Your task to perform on an android device: Show the shopping cart on costco. Add "macbook" to the cart on costco, then select checkout. Image 0: 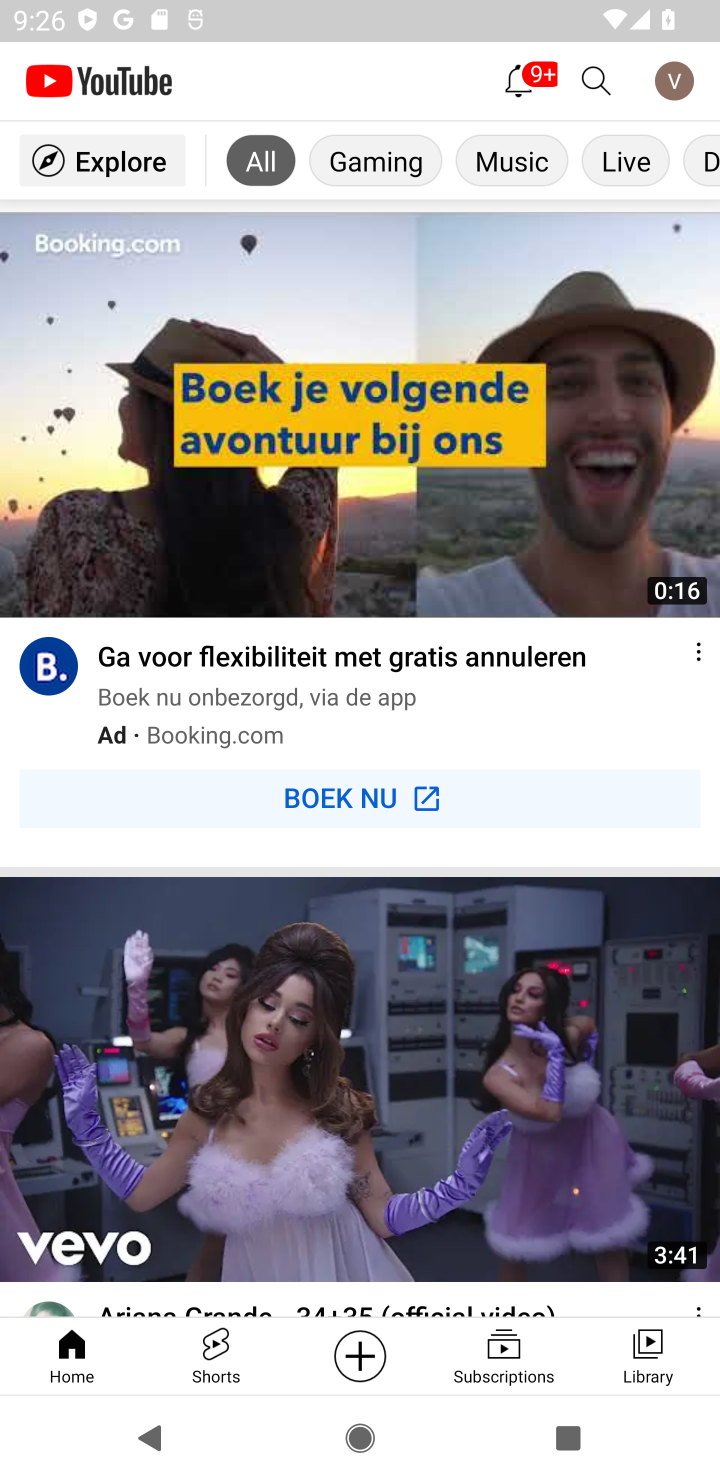
Step 0: press home button
Your task to perform on an android device: Show the shopping cart on costco. Add "macbook" to the cart on costco, then select checkout. Image 1: 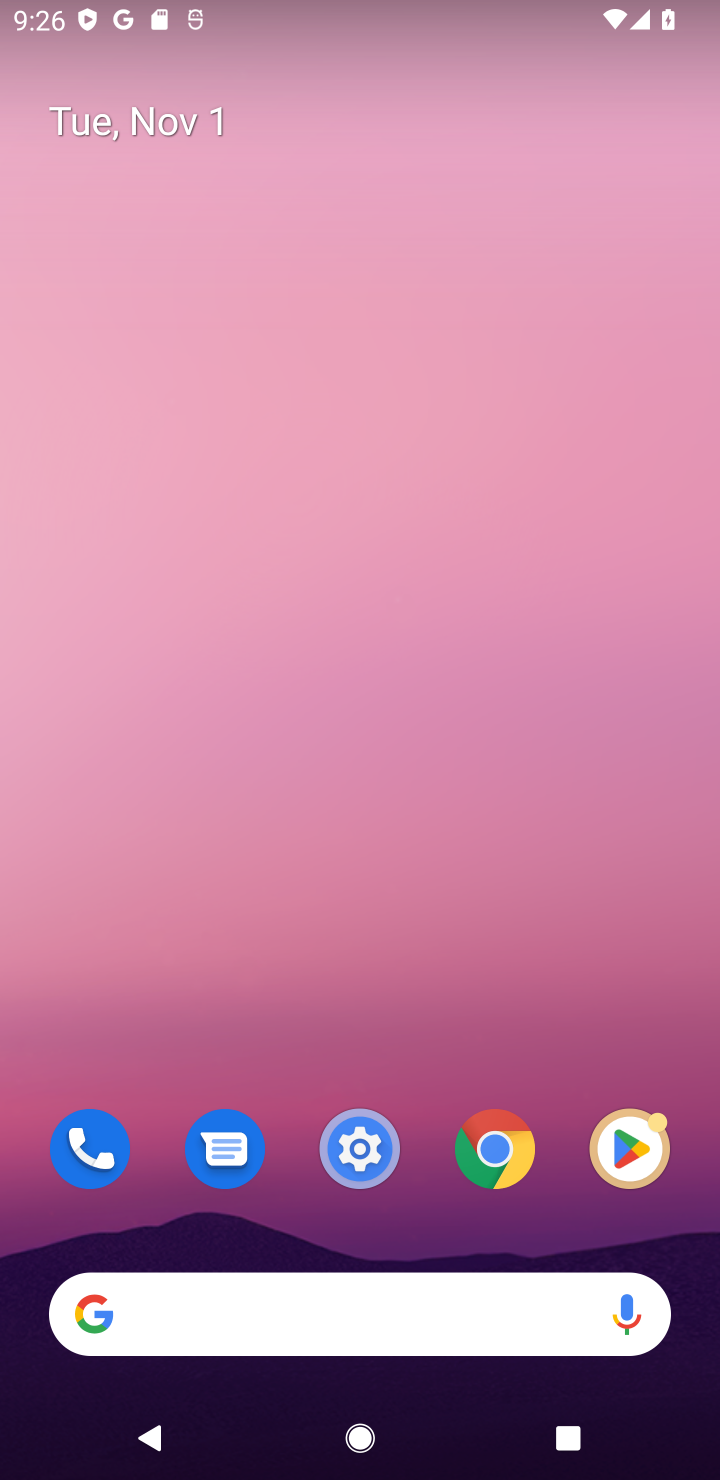
Step 1: click (155, 1315)
Your task to perform on an android device: Show the shopping cart on costco. Add "macbook" to the cart on costco, then select checkout. Image 2: 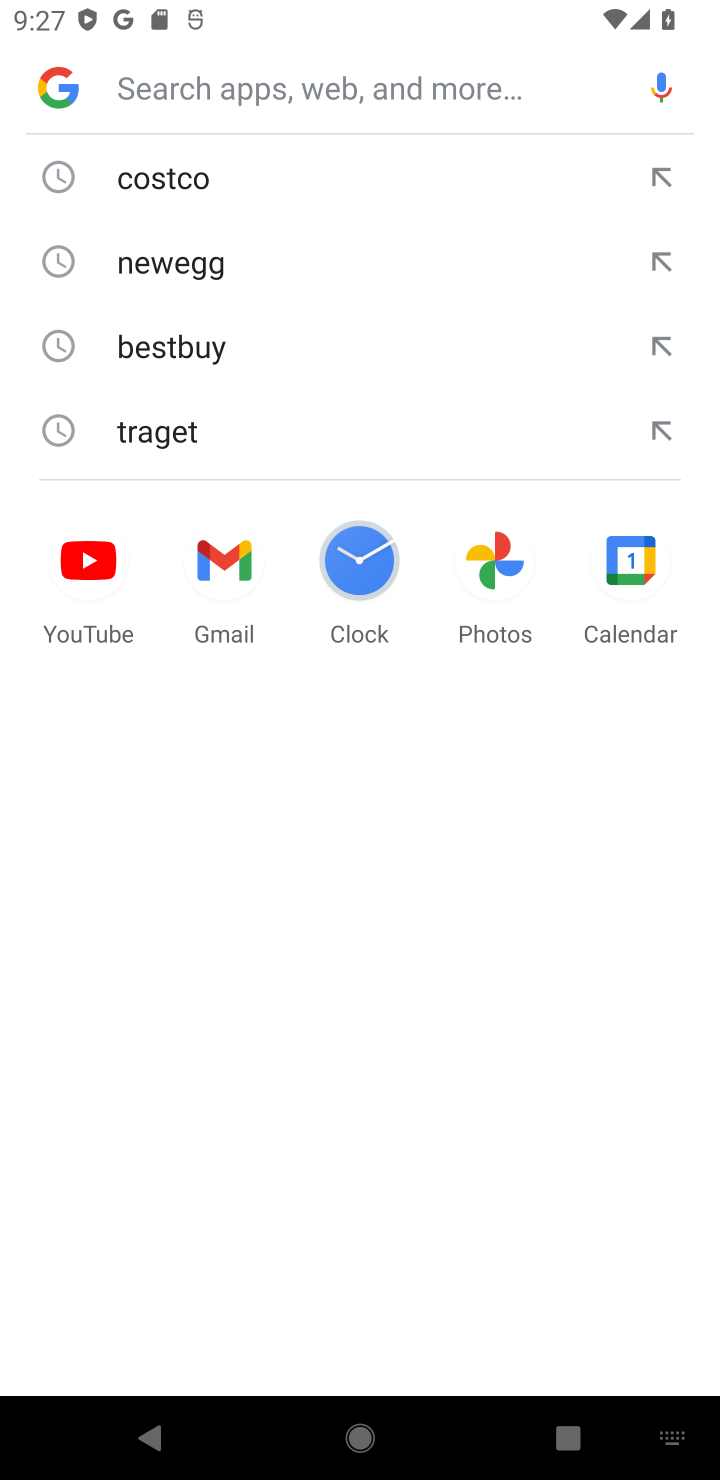
Step 2: press enter
Your task to perform on an android device: Show the shopping cart on costco. Add "macbook" to the cart on costco, then select checkout. Image 3: 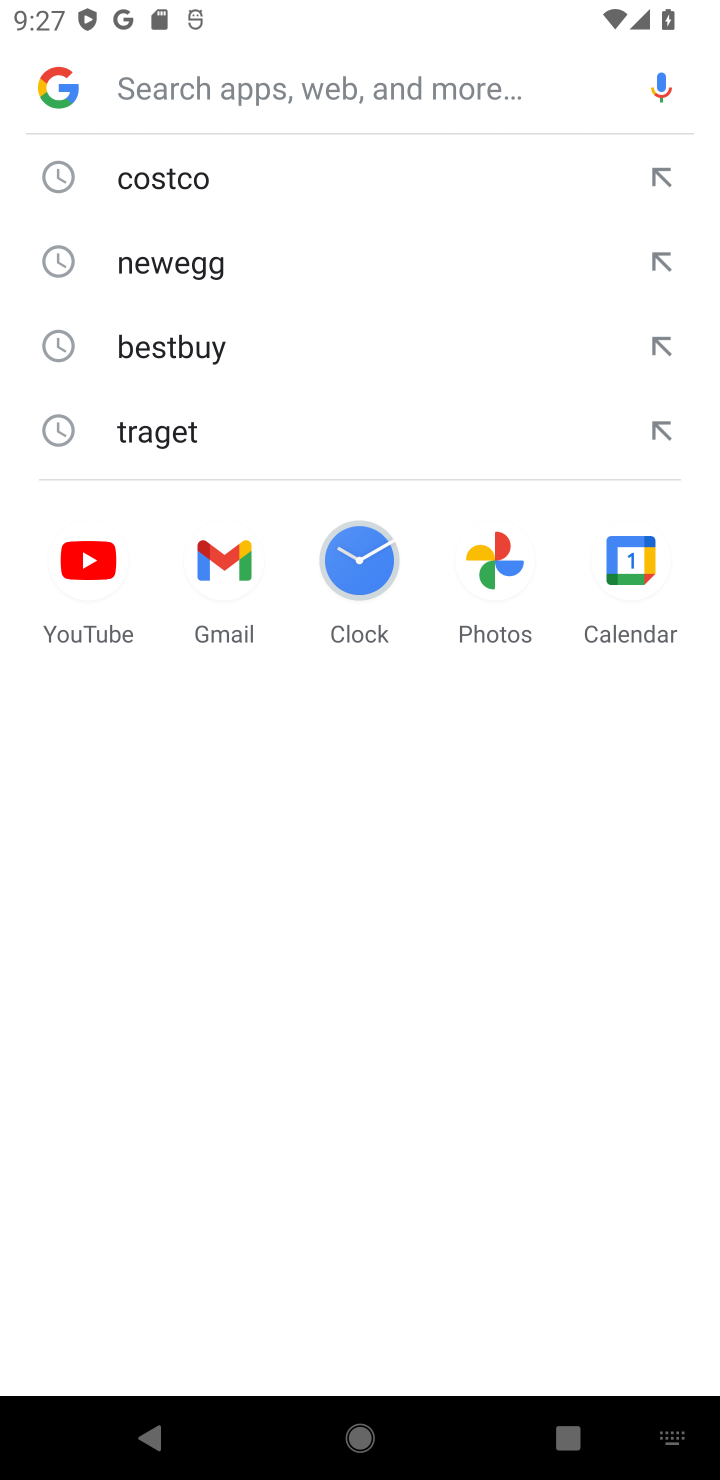
Step 3: type "costco"
Your task to perform on an android device: Show the shopping cart on costco. Add "macbook" to the cart on costco, then select checkout. Image 4: 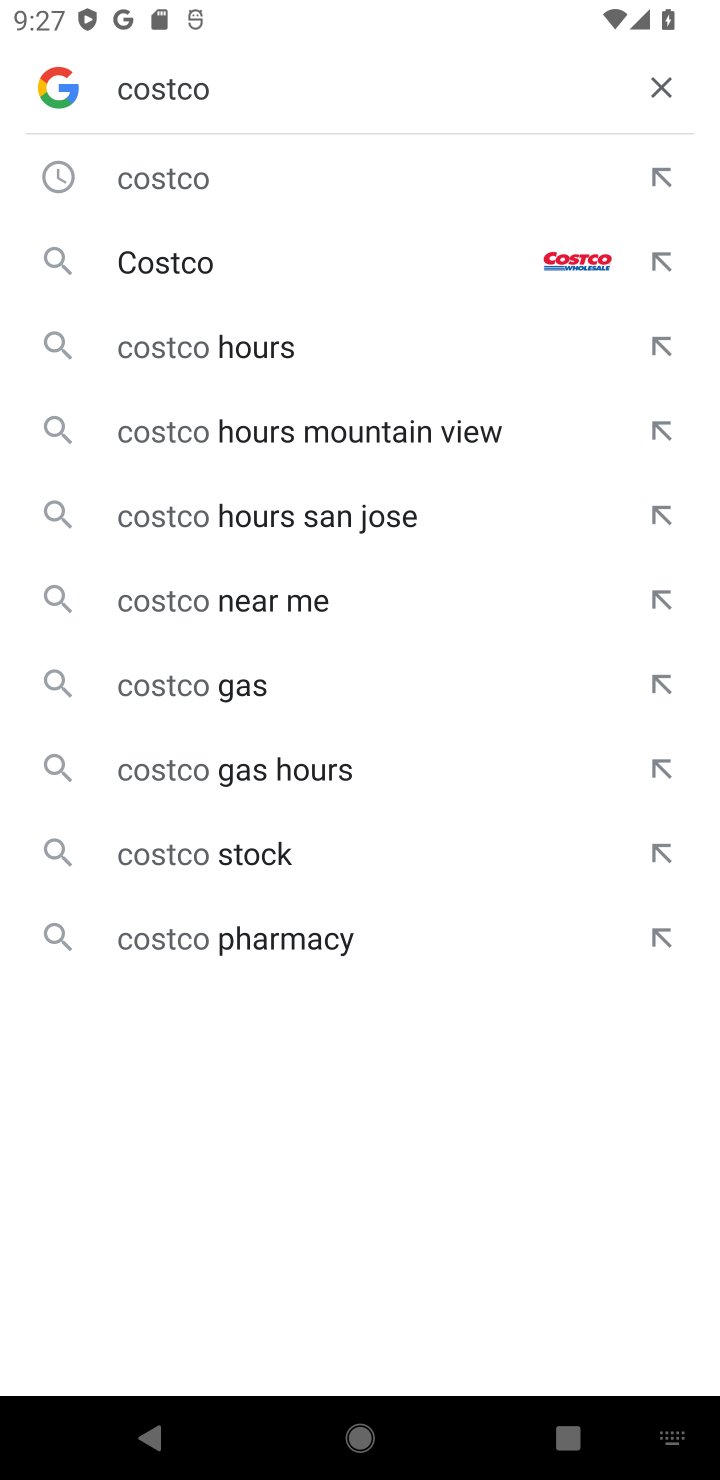
Step 4: press enter
Your task to perform on an android device: Show the shopping cart on costco. Add "macbook" to the cart on costco, then select checkout. Image 5: 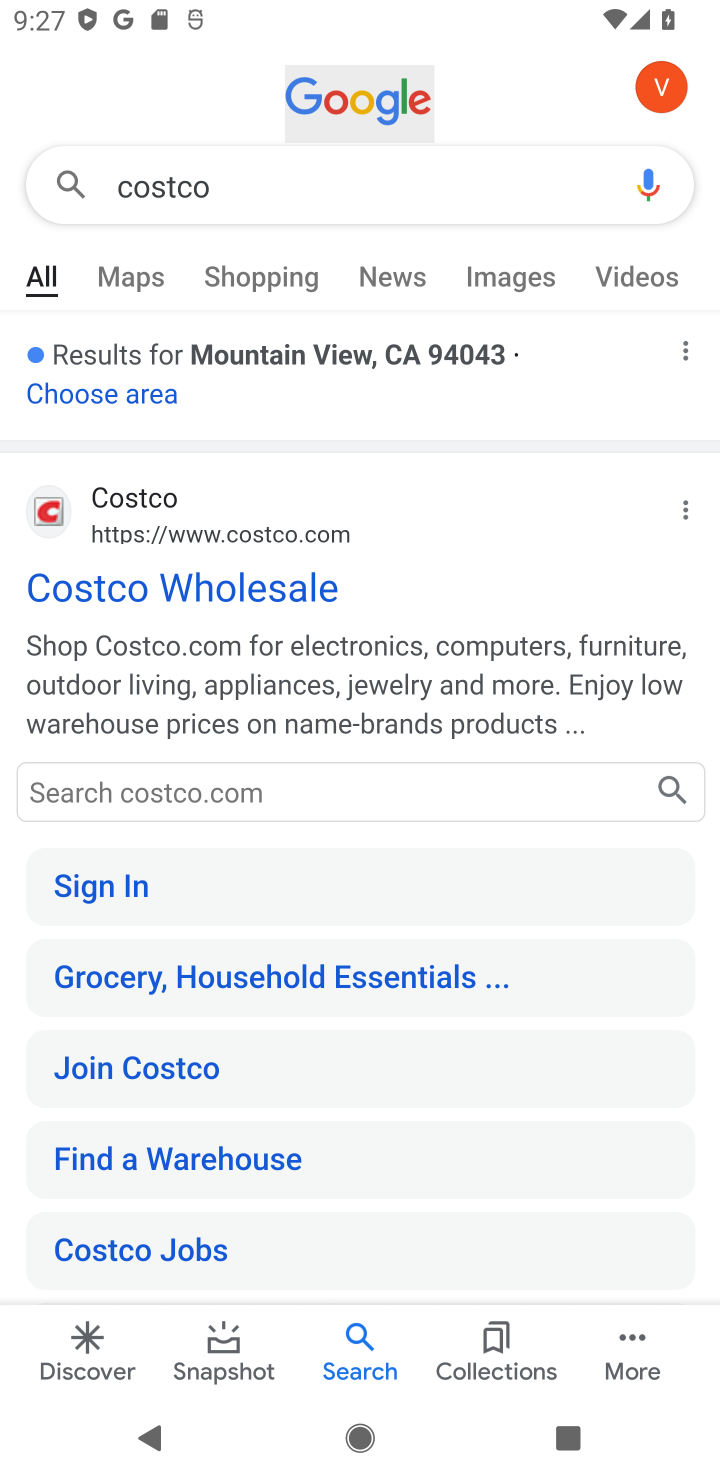
Step 5: click (99, 590)
Your task to perform on an android device: Show the shopping cart on costco. Add "macbook" to the cart on costco, then select checkout. Image 6: 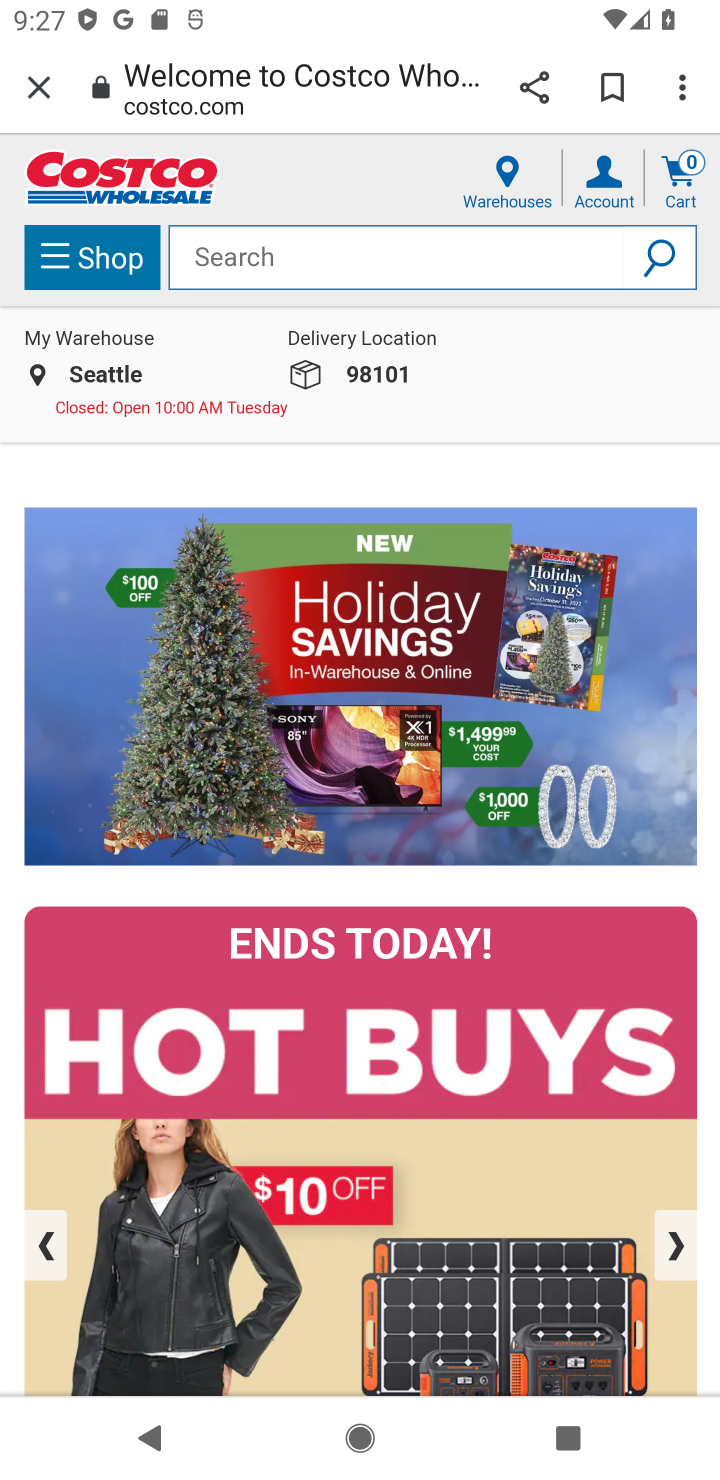
Step 6: click (280, 245)
Your task to perform on an android device: Show the shopping cart on costco. Add "macbook" to the cart on costco, then select checkout. Image 7: 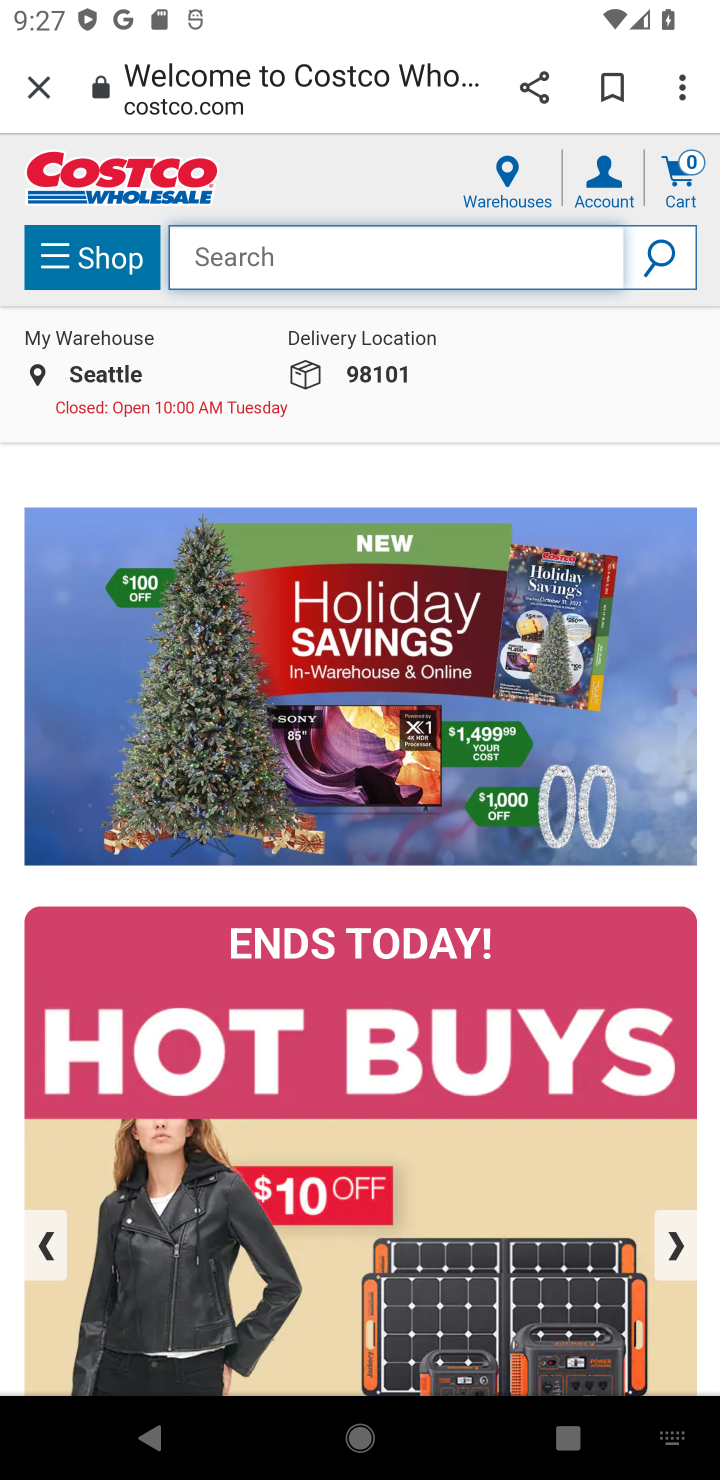
Step 7: type "macbook"
Your task to perform on an android device: Show the shopping cart on costco. Add "macbook" to the cart on costco, then select checkout. Image 8: 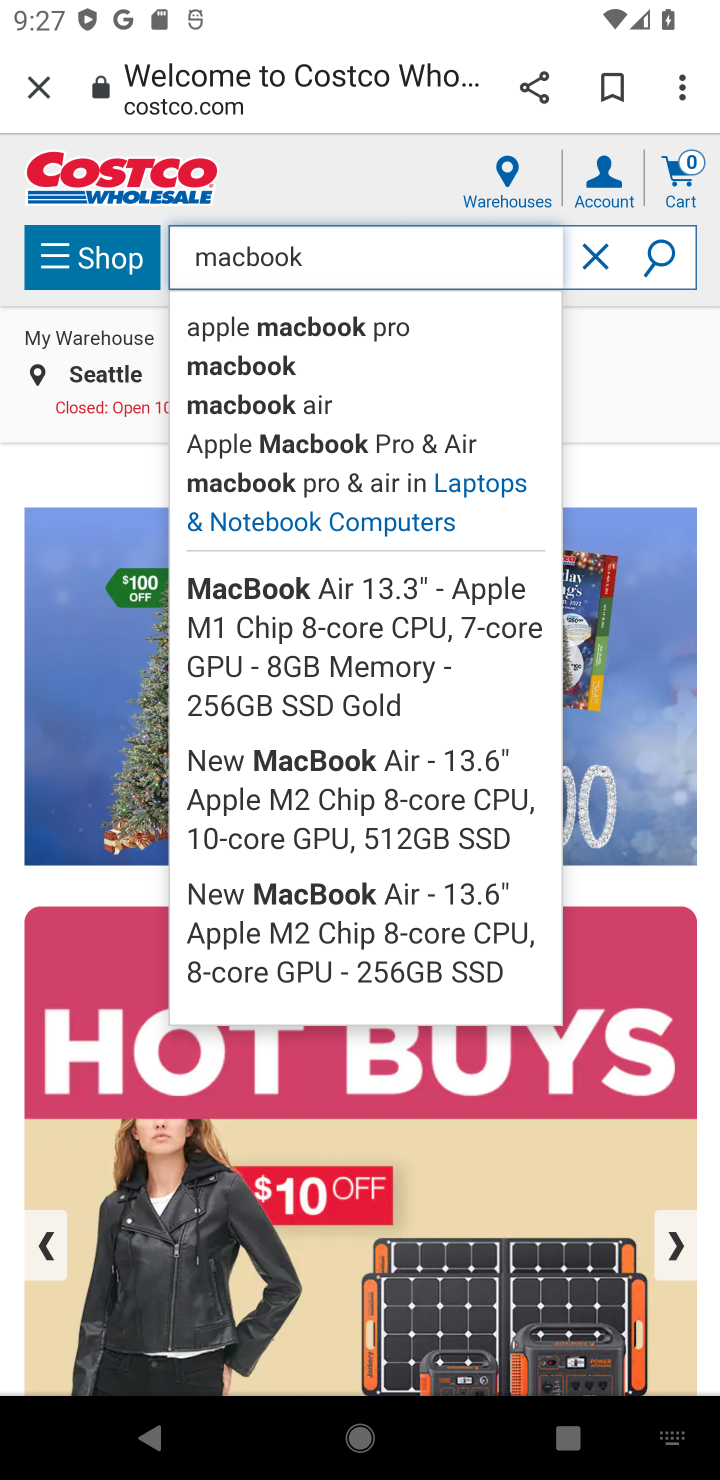
Step 8: click (672, 247)
Your task to perform on an android device: Show the shopping cart on costco. Add "macbook" to the cart on costco, then select checkout. Image 9: 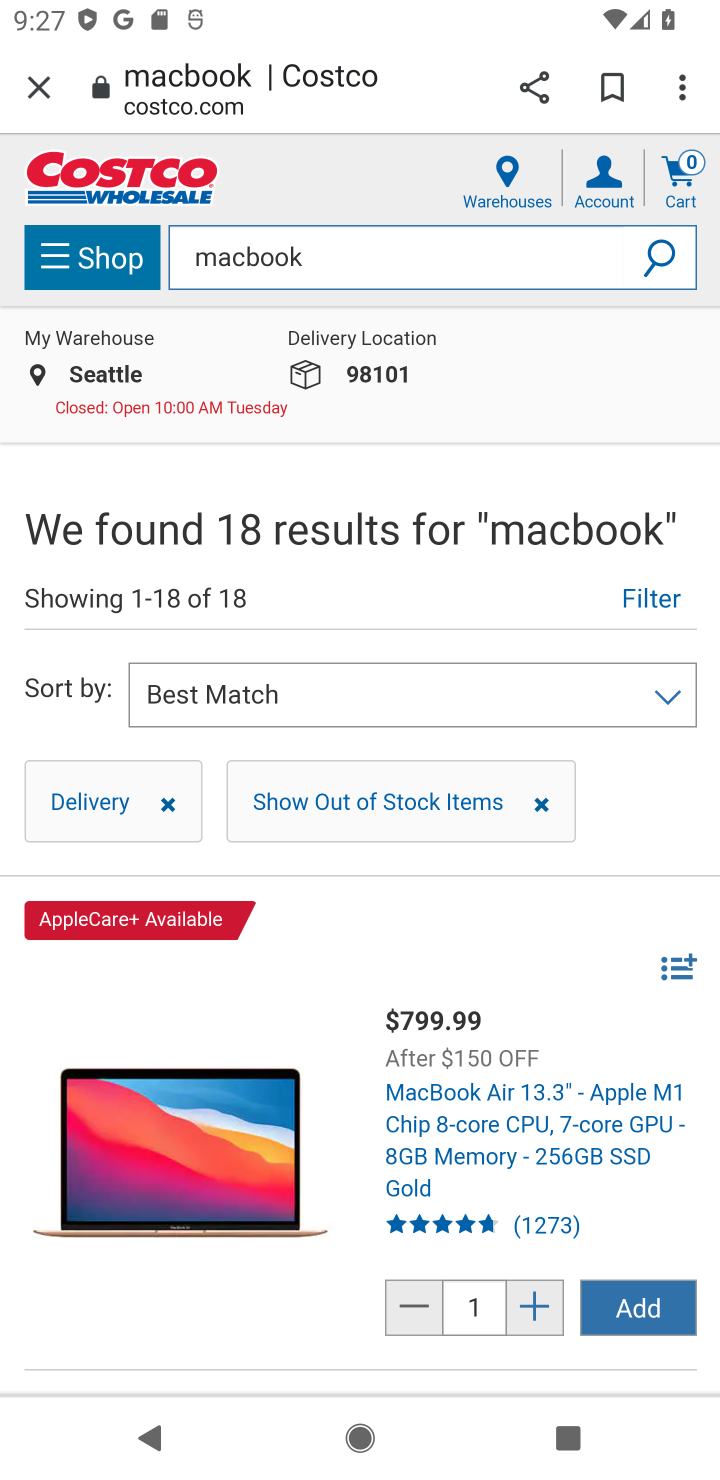
Step 9: click (641, 1320)
Your task to perform on an android device: Show the shopping cart on costco. Add "macbook" to the cart on costco, then select checkout. Image 10: 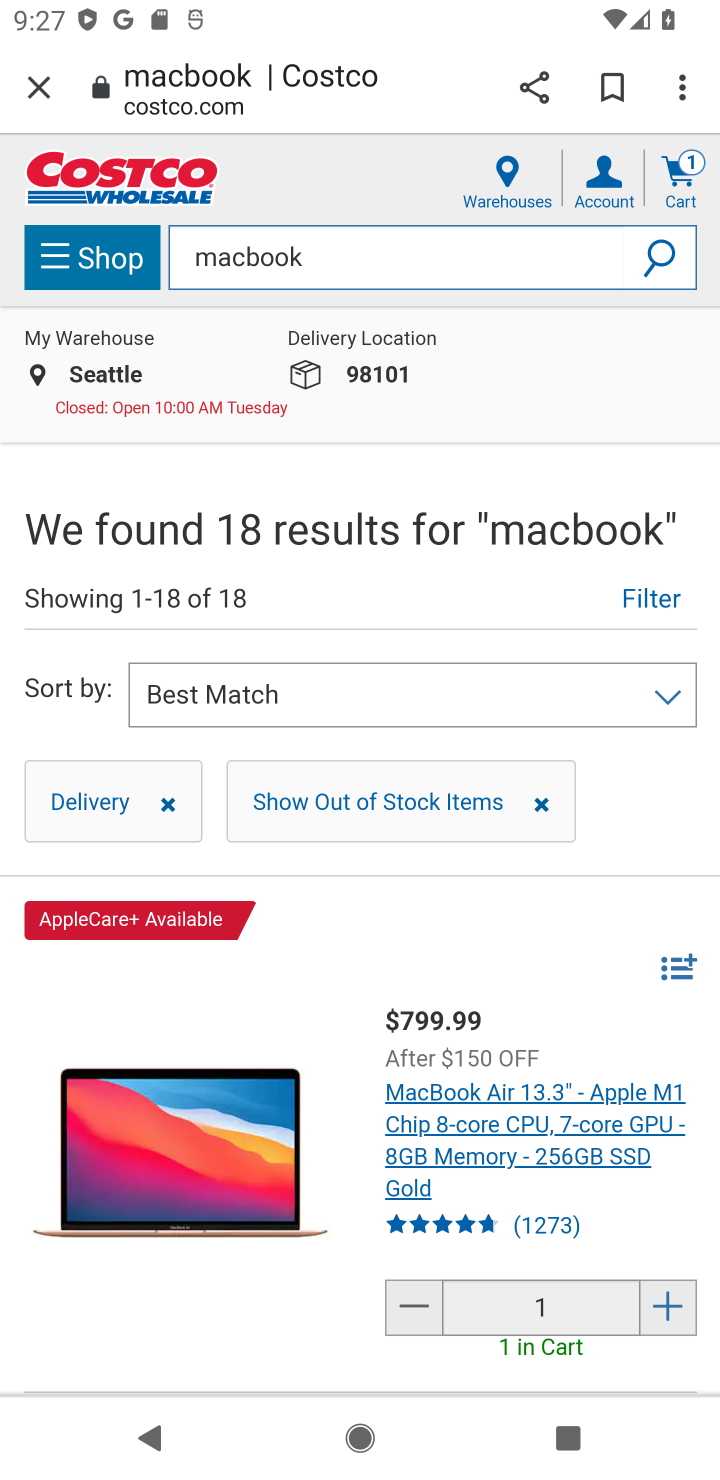
Step 10: click (691, 160)
Your task to perform on an android device: Show the shopping cart on costco. Add "macbook" to the cart on costco, then select checkout. Image 11: 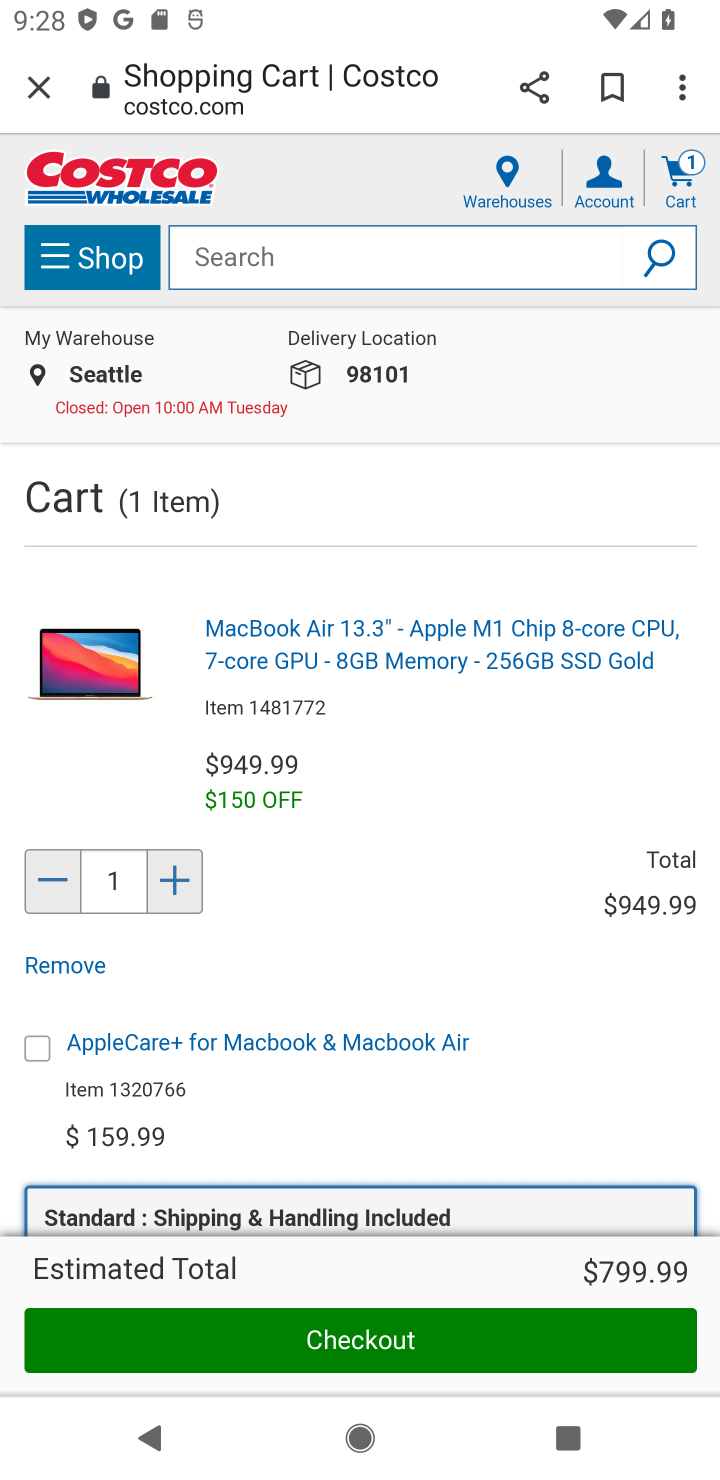
Step 11: click (351, 1352)
Your task to perform on an android device: Show the shopping cart on costco. Add "macbook" to the cart on costco, then select checkout. Image 12: 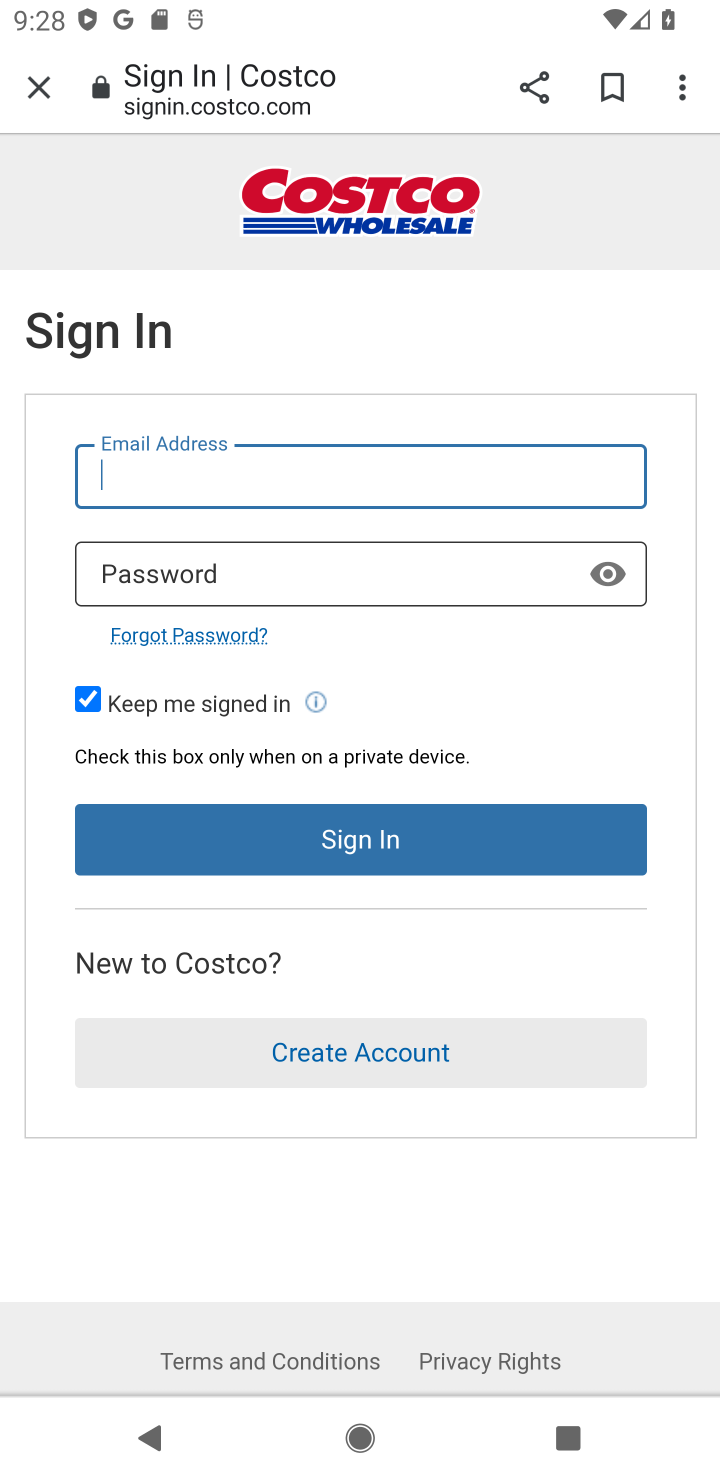
Step 12: task complete